Your task to perform on an android device: Go to calendar. Show me events next week Image 0: 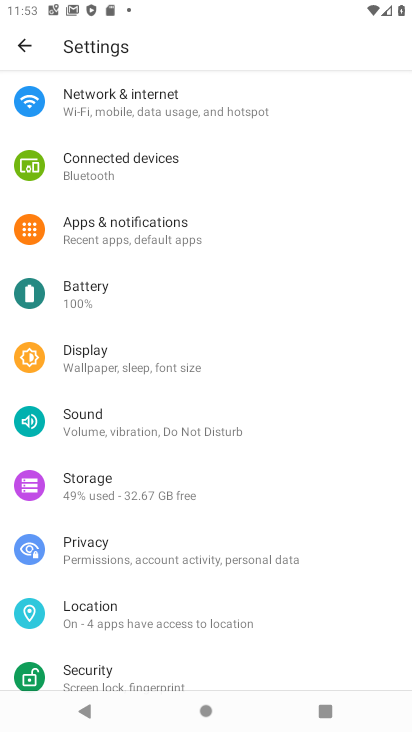
Step 0: press home button
Your task to perform on an android device: Go to calendar. Show me events next week Image 1: 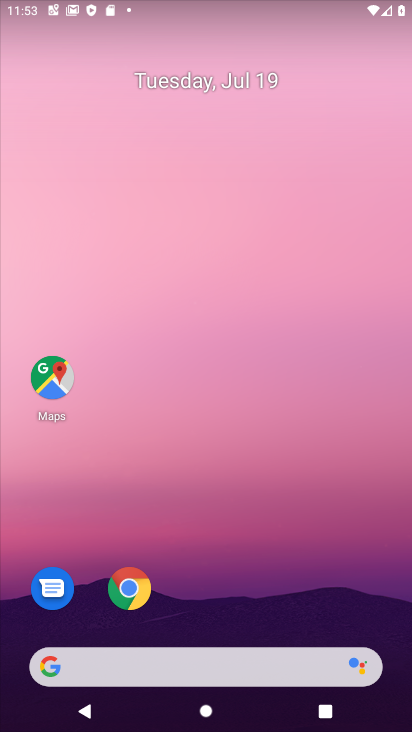
Step 1: drag from (350, 548) to (269, 193)
Your task to perform on an android device: Go to calendar. Show me events next week Image 2: 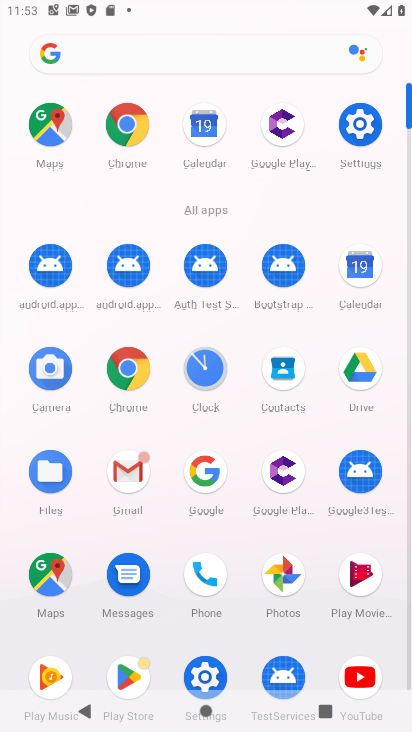
Step 2: click (357, 273)
Your task to perform on an android device: Go to calendar. Show me events next week Image 3: 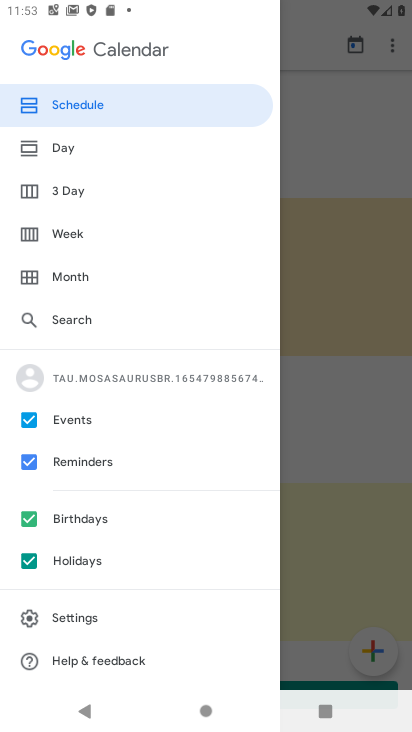
Step 3: click (53, 234)
Your task to perform on an android device: Go to calendar. Show me events next week Image 4: 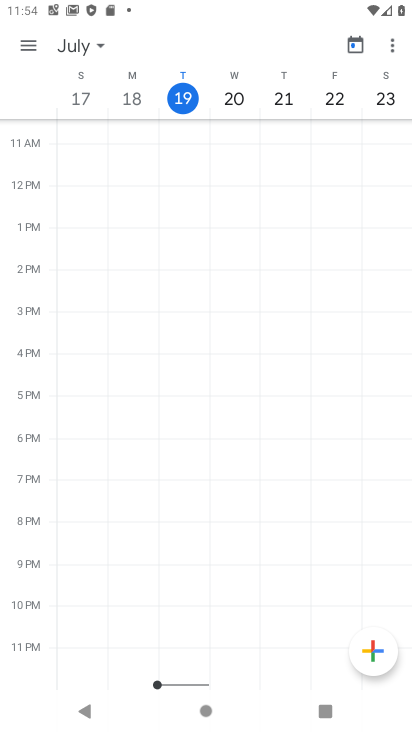
Step 4: click (34, 48)
Your task to perform on an android device: Go to calendar. Show me events next week Image 5: 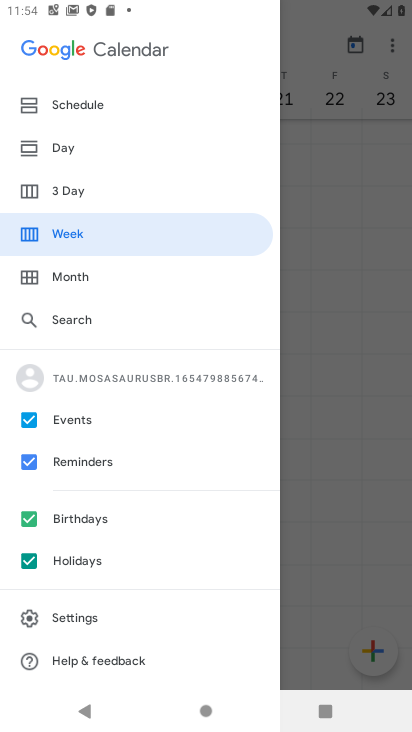
Step 5: click (54, 241)
Your task to perform on an android device: Go to calendar. Show me events next week Image 6: 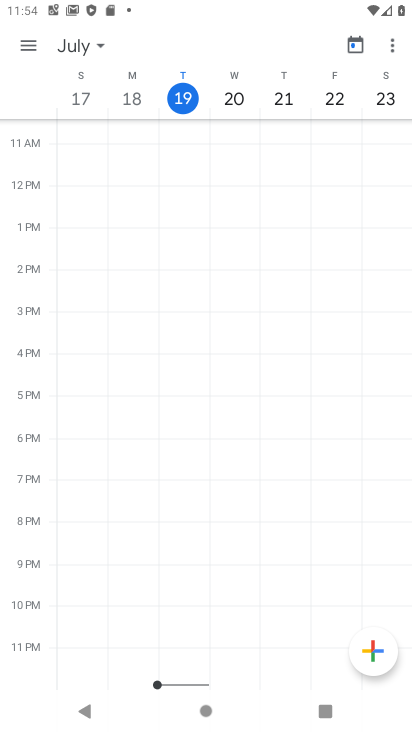
Step 6: task complete